Your task to perform on an android device: set an alarm Image 0: 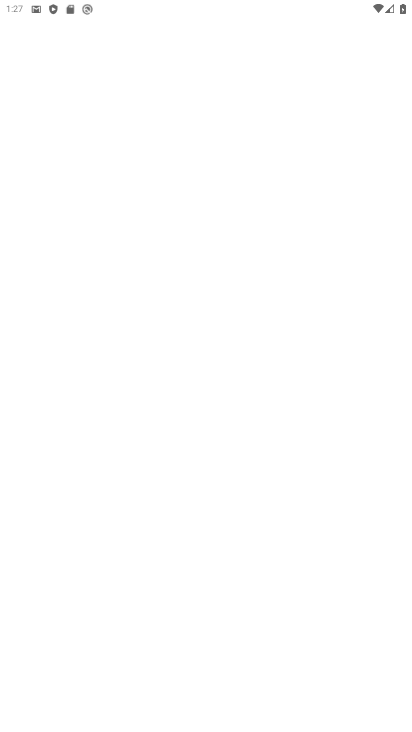
Step 0: press home button
Your task to perform on an android device: set an alarm Image 1: 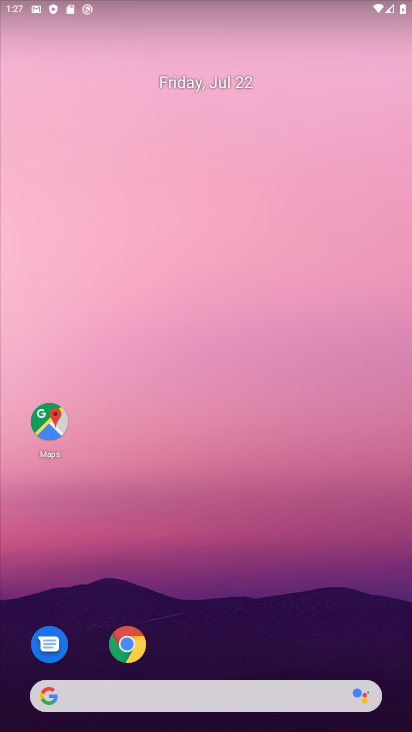
Step 1: drag from (201, 633) to (233, 63)
Your task to perform on an android device: set an alarm Image 2: 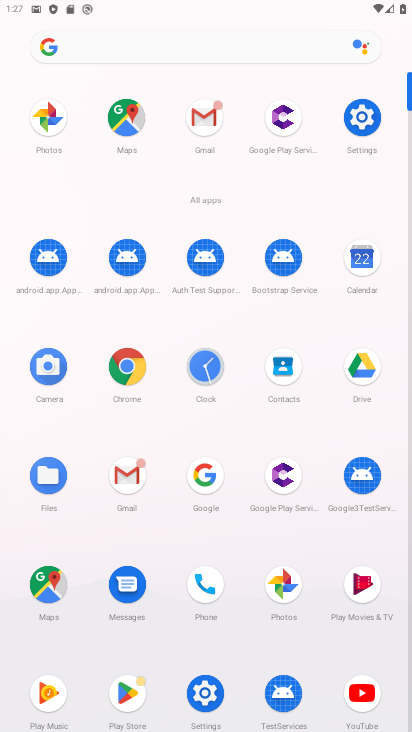
Step 2: click (206, 368)
Your task to perform on an android device: set an alarm Image 3: 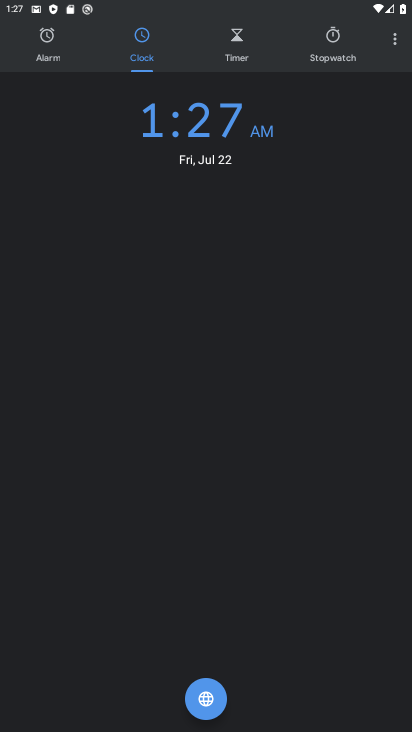
Step 3: click (49, 39)
Your task to perform on an android device: set an alarm Image 4: 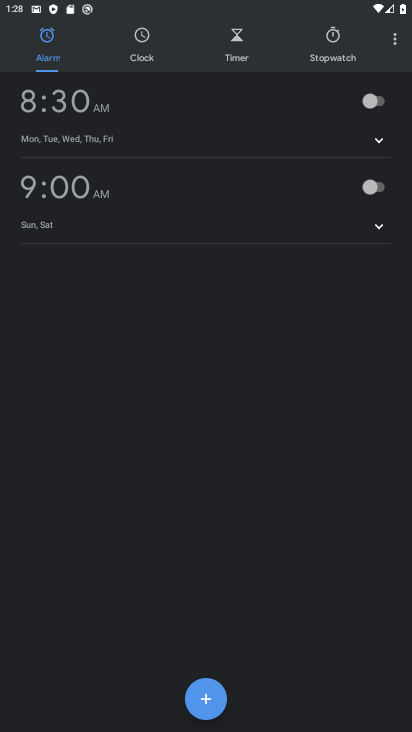
Step 4: click (379, 97)
Your task to perform on an android device: set an alarm Image 5: 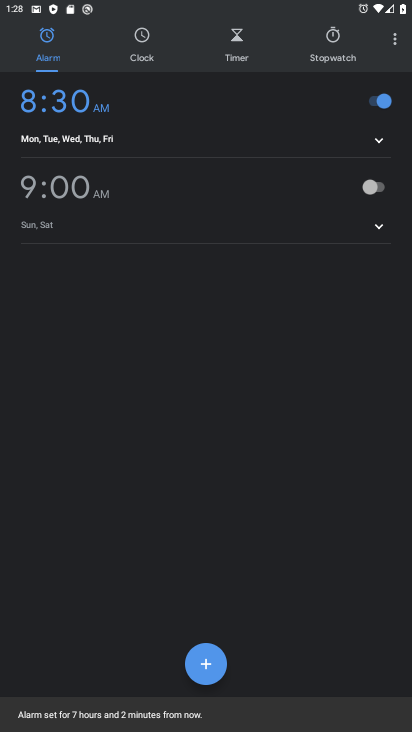
Step 5: task complete